Your task to perform on an android device: search for starred emails in the gmail app Image 0: 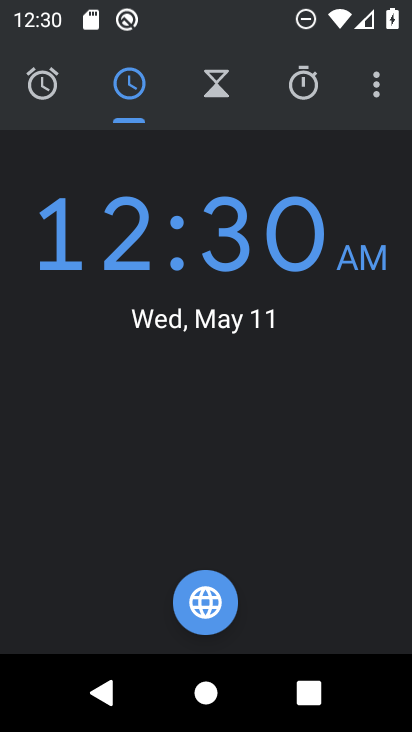
Step 0: press home button
Your task to perform on an android device: search for starred emails in the gmail app Image 1: 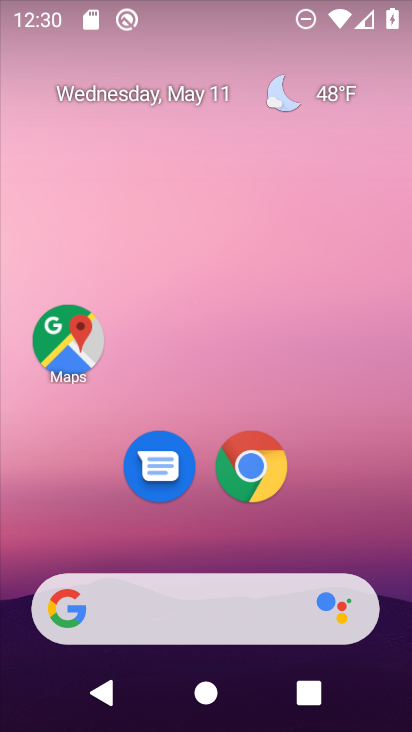
Step 1: drag from (203, 485) to (275, 39)
Your task to perform on an android device: search for starred emails in the gmail app Image 2: 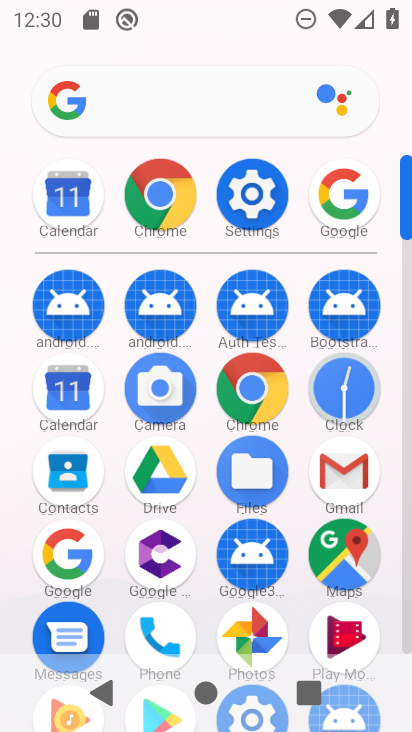
Step 2: click (341, 461)
Your task to perform on an android device: search for starred emails in the gmail app Image 3: 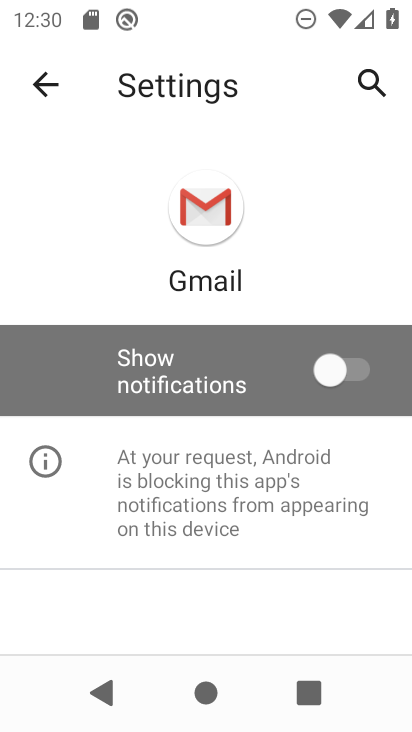
Step 3: click (48, 92)
Your task to perform on an android device: search for starred emails in the gmail app Image 4: 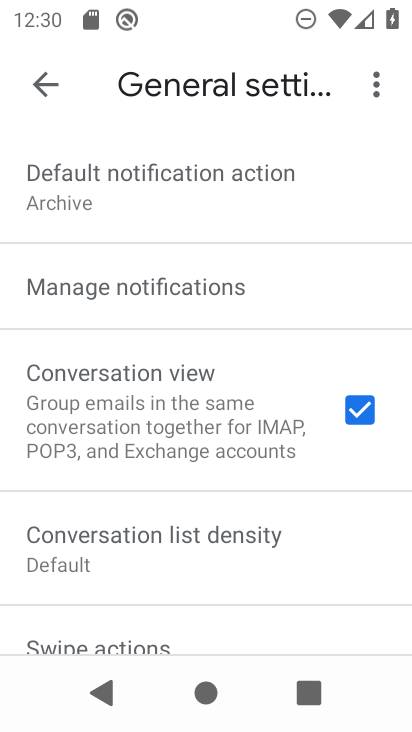
Step 4: click (55, 86)
Your task to perform on an android device: search for starred emails in the gmail app Image 5: 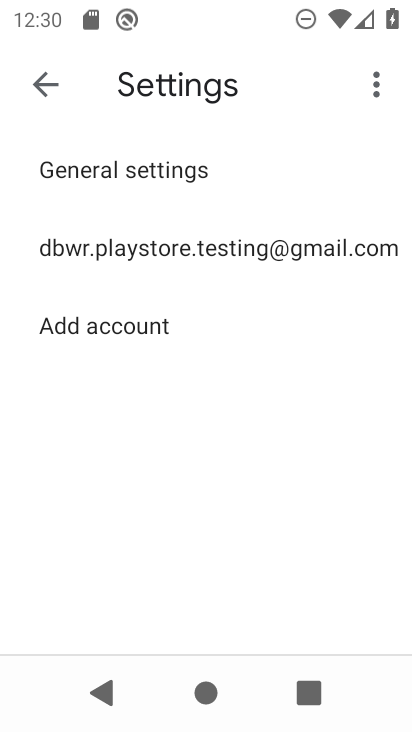
Step 5: click (49, 91)
Your task to perform on an android device: search for starred emails in the gmail app Image 6: 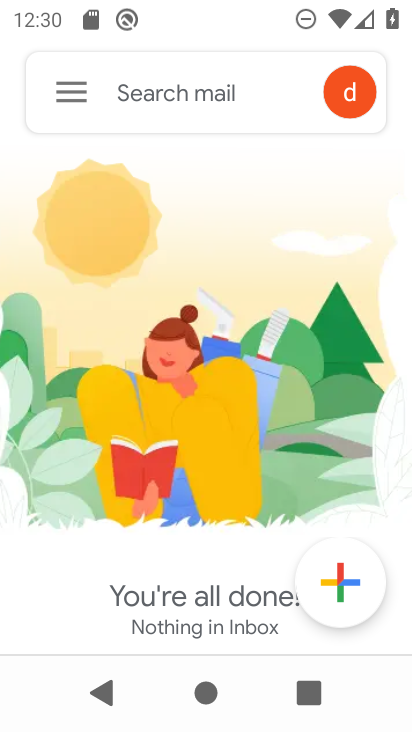
Step 6: click (76, 95)
Your task to perform on an android device: search for starred emails in the gmail app Image 7: 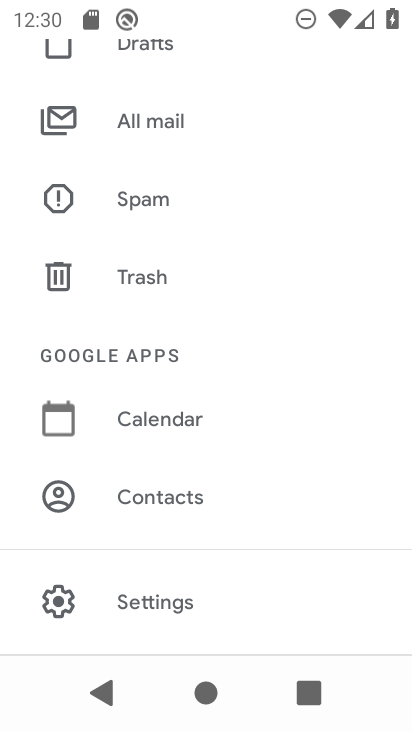
Step 7: drag from (116, 85) to (134, 659)
Your task to perform on an android device: search for starred emails in the gmail app Image 8: 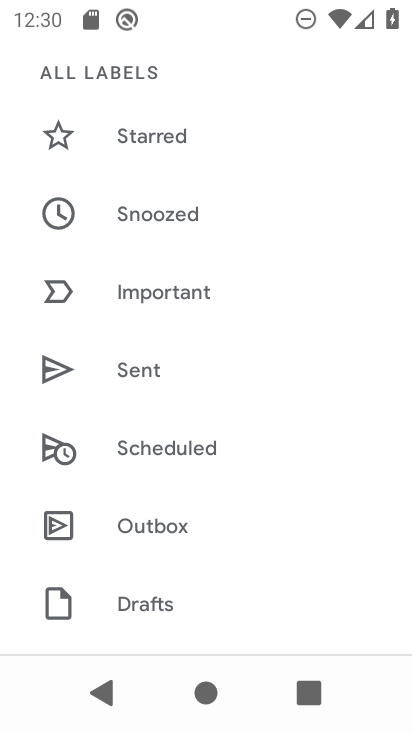
Step 8: click (102, 134)
Your task to perform on an android device: search for starred emails in the gmail app Image 9: 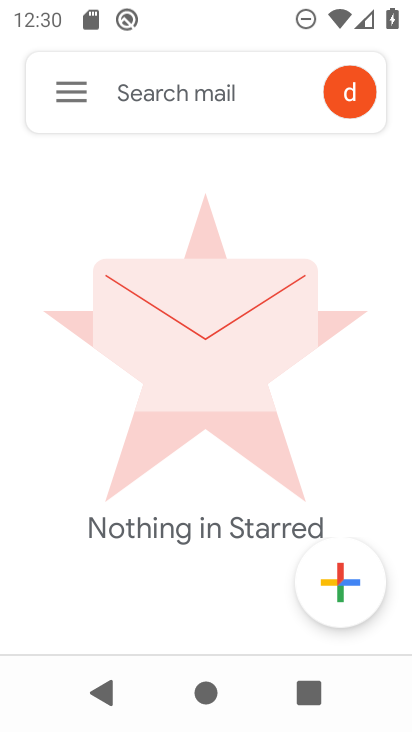
Step 9: task complete